Your task to perform on an android device: turn notification dots off Image 0: 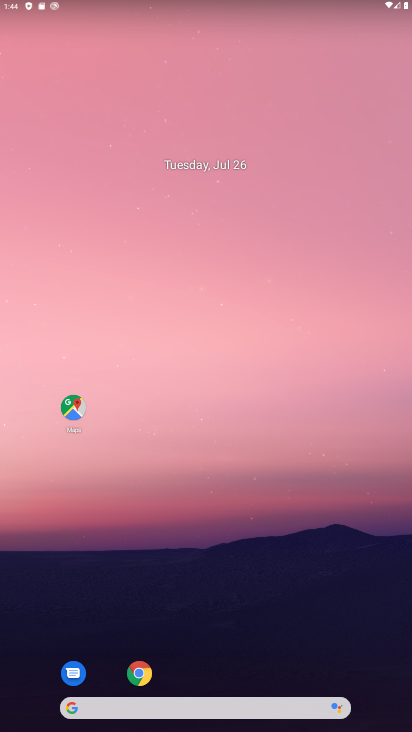
Step 0: click (266, 124)
Your task to perform on an android device: turn notification dots off Image 1: 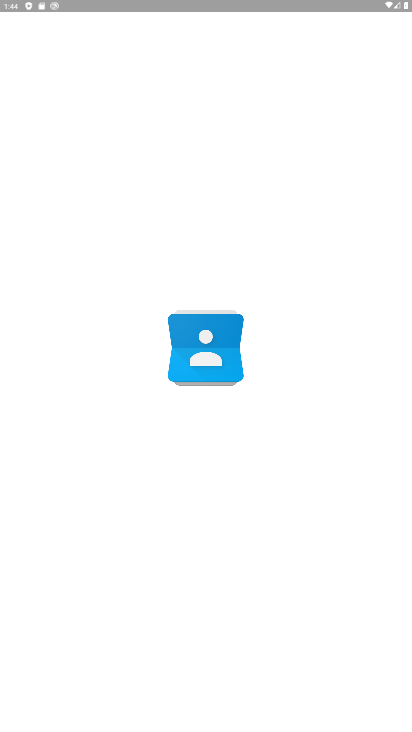
Step 1: drag from (239, 522) to (224, 132)
Your task to perform on an android device: turn notification dots off Image 2: 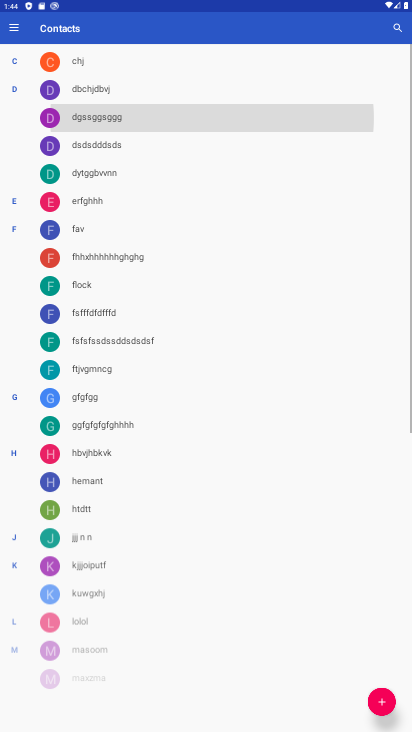
Step 2: drag from (286, 654) to (253, 264)
Your task to perform on an android device: turn notification dots off Image 3: 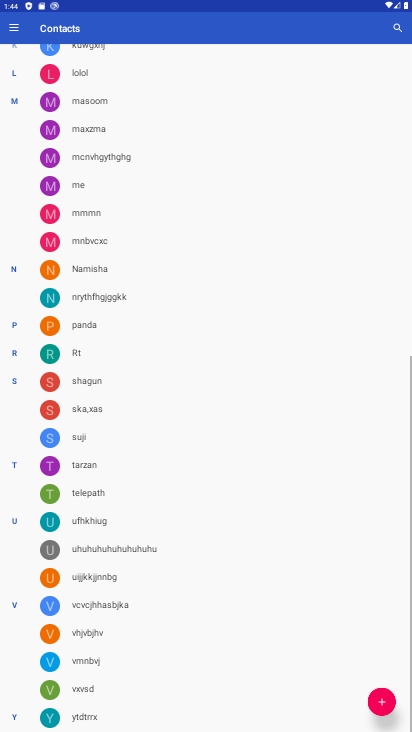
Step 3: press back button
Your task to perform on an android device: turn notification dots off Image 4: 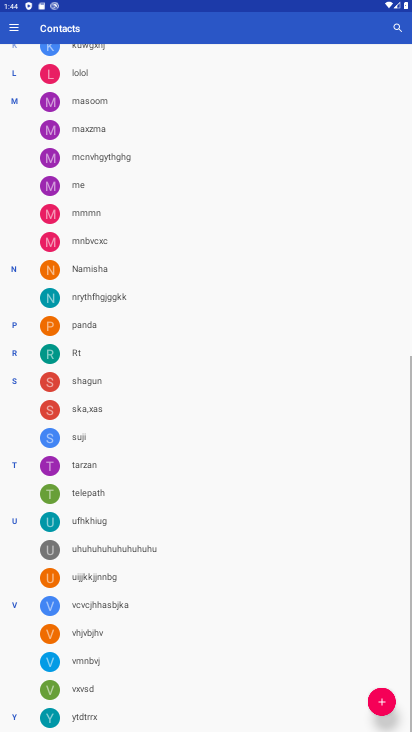
Step 4: press back button
Your task to perform on an android device: turn notification dots off Image 5: 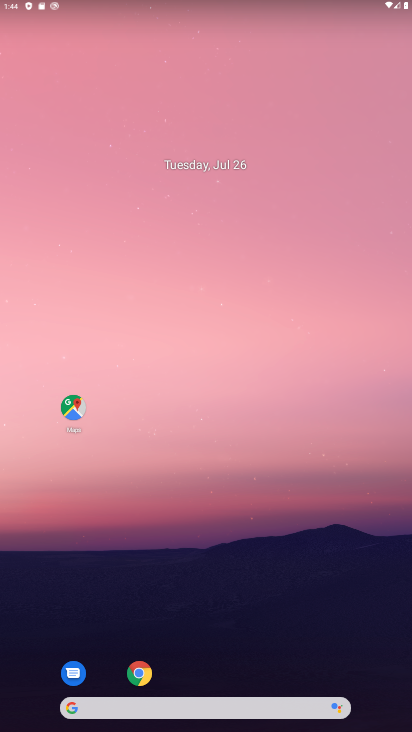
Step 5: drag from (149, 471) to (65, 85)
Your task to perform on an android device: turn notification dots off Image 6: 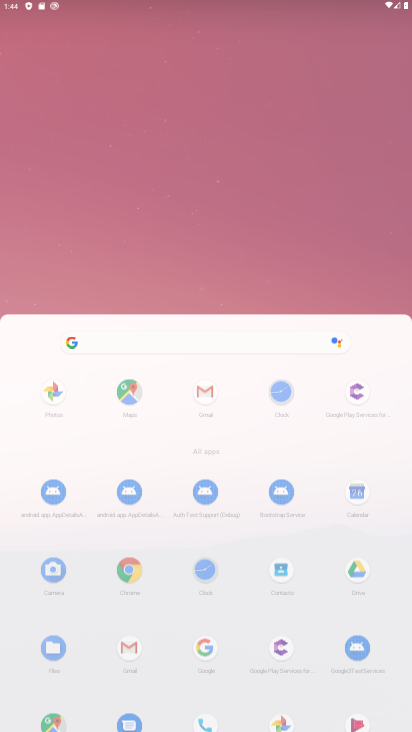
Step 6: drag from (152, 561) to (119, 154)
Your task to perform on an android device: turn notification dots off Image 7: 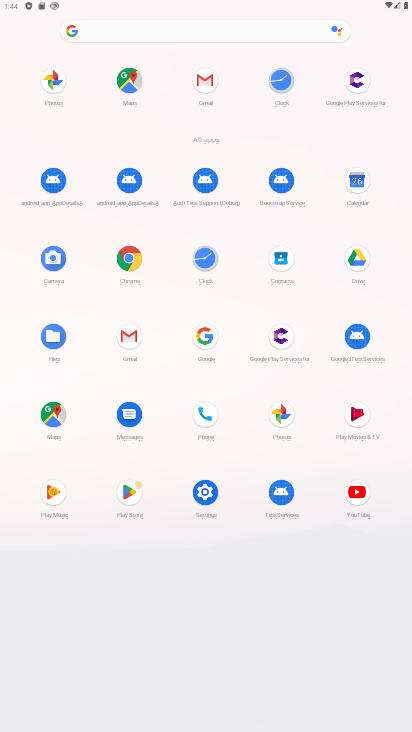
Step 7: drag from (181, 546) to (157, 284)
Your task to perform on an android device: turn notification dots off Image 8: 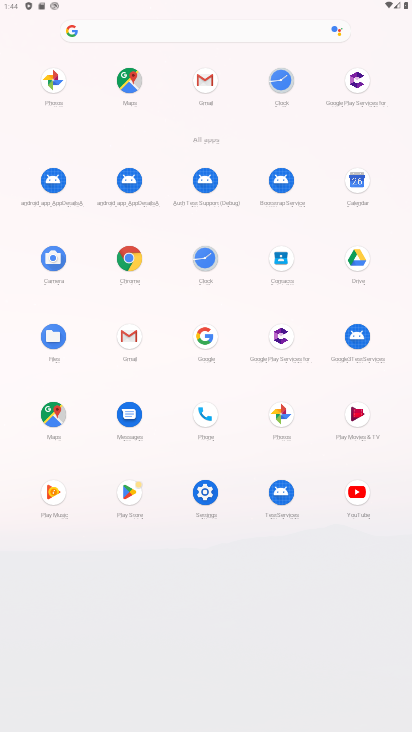
Step 8: click (196, 484)
Your task to perform on an android device: turn notification dots off Image 9: 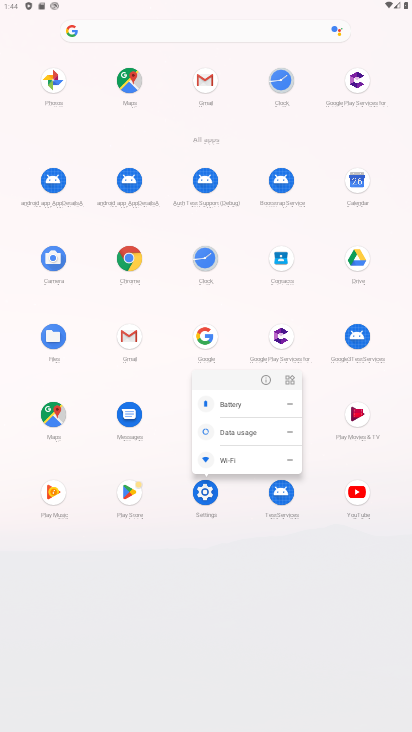
Step 9: click (197, 487)
Your task to perform on an android device: turn notification dots off Image 10: 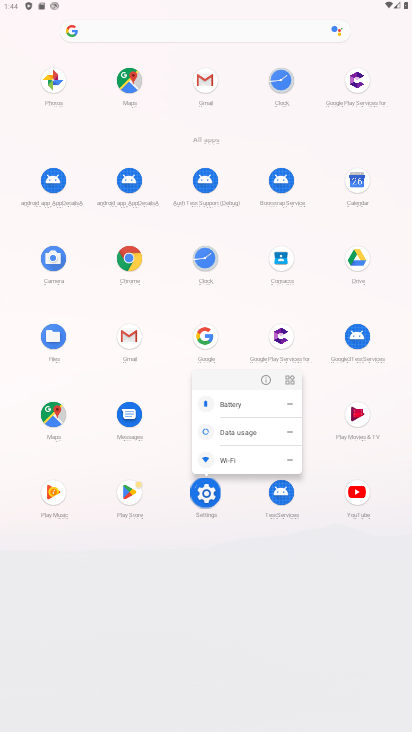
Step 10: click (199, 488)
Your task to perform on an android device: turn notification dots off Image 11: 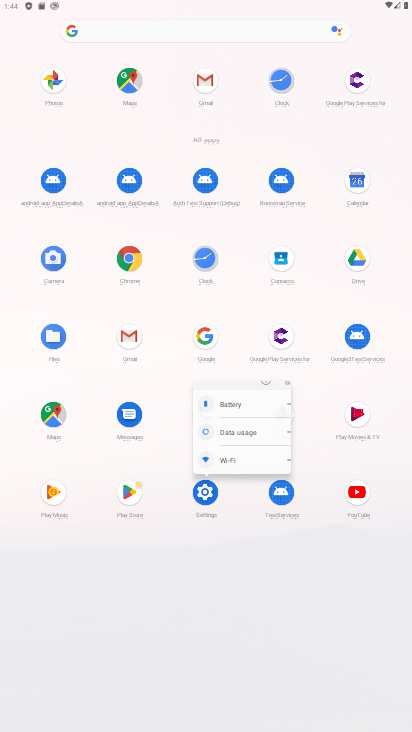
Step 11: click (199, 488)
Your task to perform on an android device: turn notification dots off Image 12: 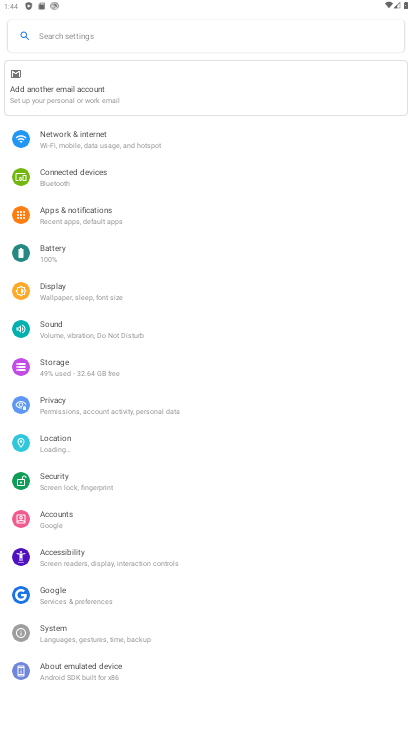
Step 12: click (60, 202)
Your task to perform on an android device: turn notification dots off Image 13: 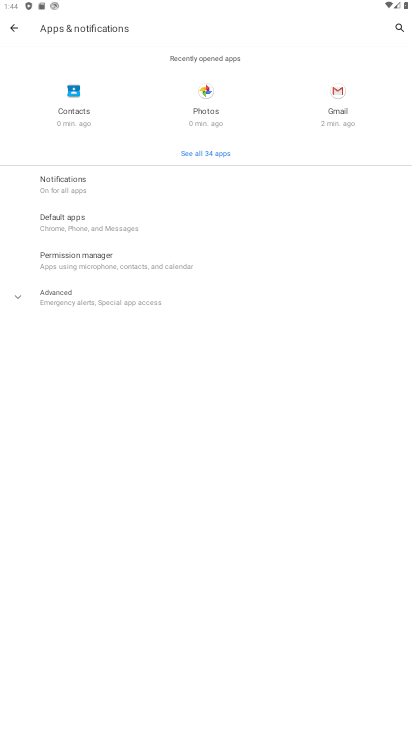
Step 13: click (81, 184)
Your task to perform on an android device: turn notification dots off Image 14: 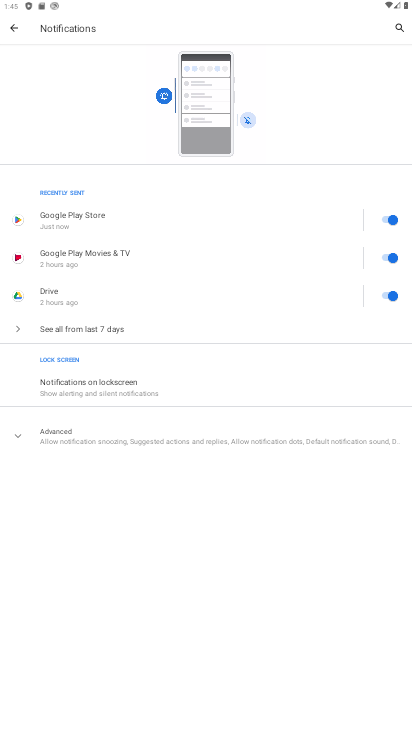
Step 14: click (67, 444)
Your task to perform on an android device: turn notification dots off Image 15: 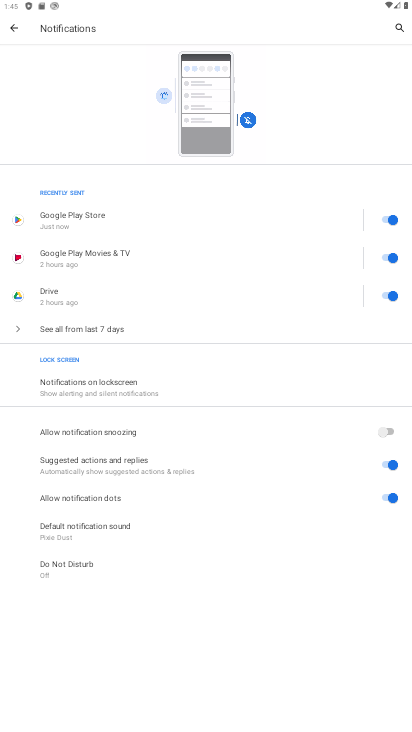
Step 15: click (389, 495)
Your task to perform on an android device: turn notification dots off Image 16: 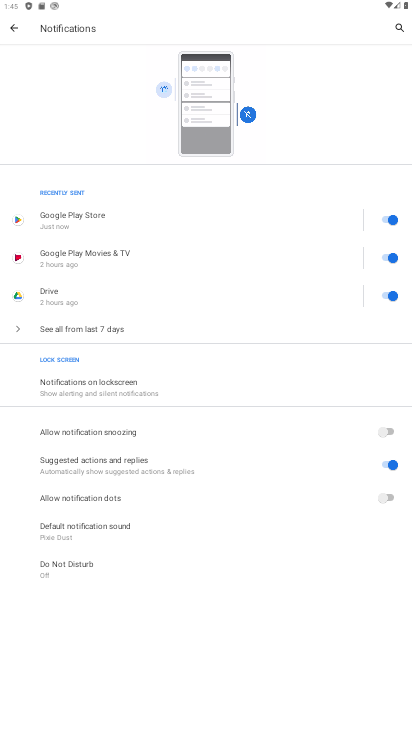
Step 16: task complete